Your task to perform on an android device: open chrome privacy settings Image 0: 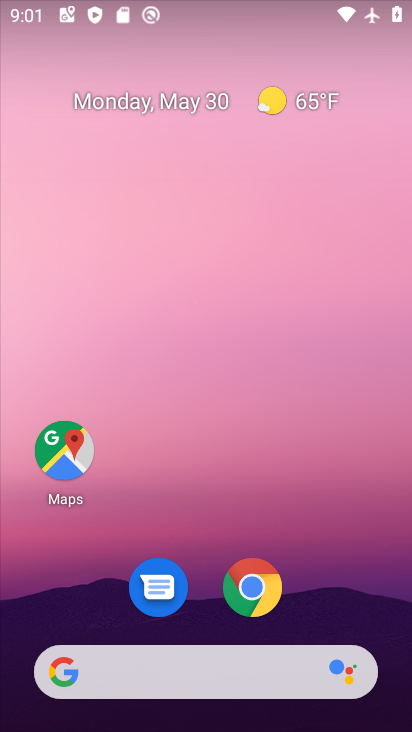
Step 0: press home button
Your task to perform on an android device: open chrome privacy settings Image 1: 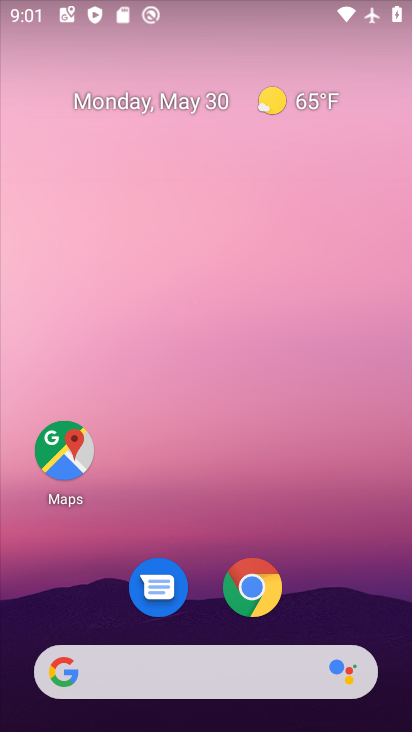
Step 1: click (246, 583)
Your task to perform on an android device: open chrome privacy settings Image 2: 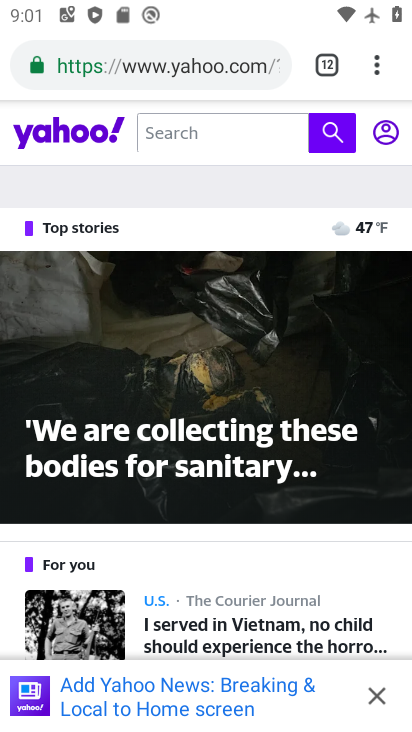
Step 2: drag from (376, 67) to (230, 639)
Your task to perform on an android device: open chrome privacy settings Image 3: 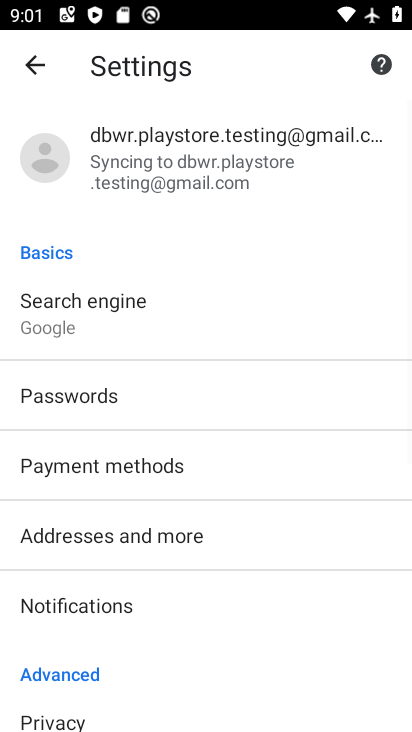
Step 3: drag from (218, 624) to (319, 200)
Your task to perform on an android device: open chrome privacy settings Image 4: 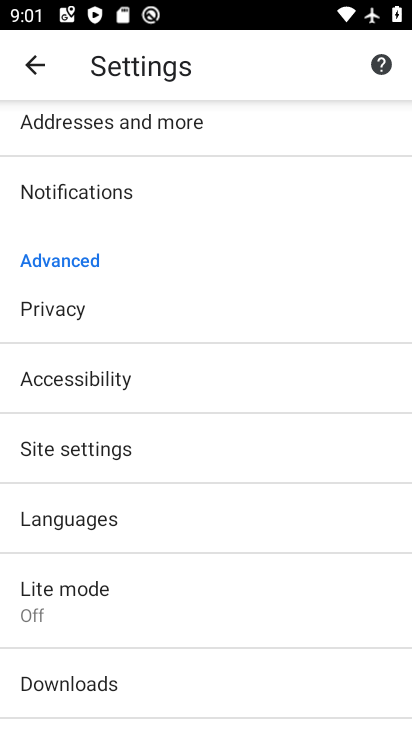
Step 4: click (53, 304)
Your task to perform on an android device: open chrome privacy settings Image 5: 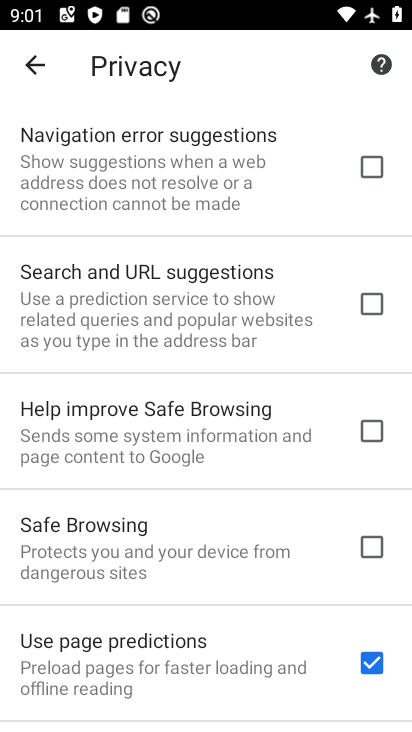
Step 5: task complete